Your task to perform on an android device: check android version Image 0: 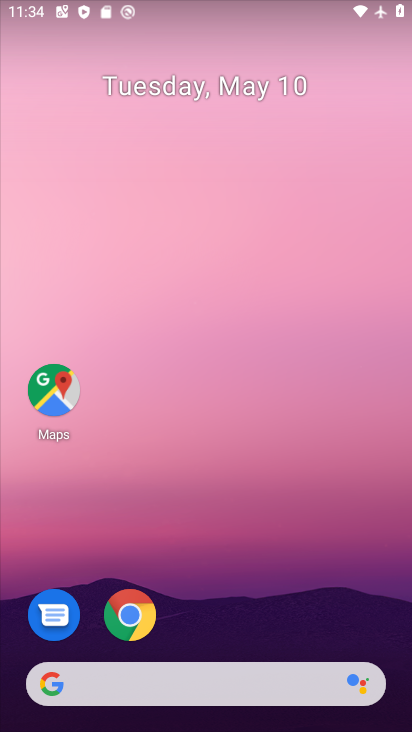
Step 0: drag from (230, 597) to (188, 17)
Your task to perform on an android device: check android version Image 1: 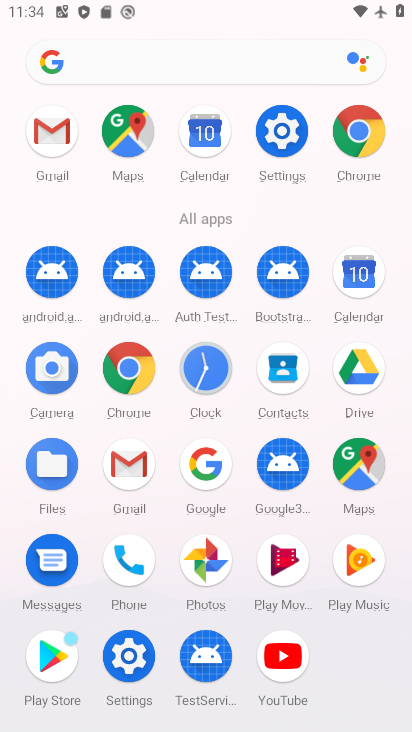
Step 1: click (127, 654)
Your task to perform on an android device: check android version Image 2: 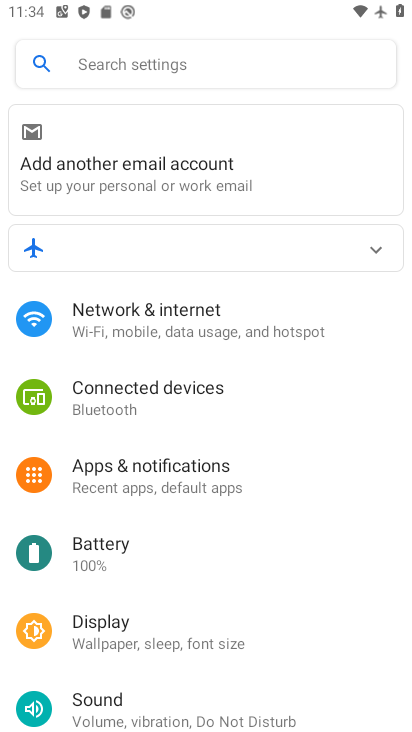
Step 2: drag from (252, 611) to (256, 105)
Your task to perform on an android device: check android version Image 3: 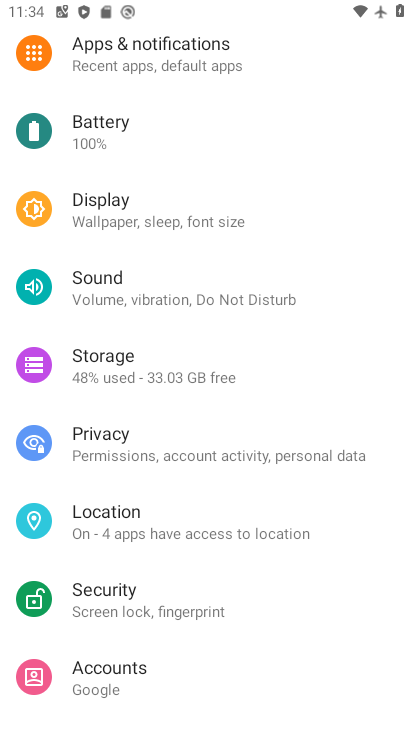
Step 3: drag from (249, 570) to (263, 104)
Your task to perform on an android device: check android version Image 4: 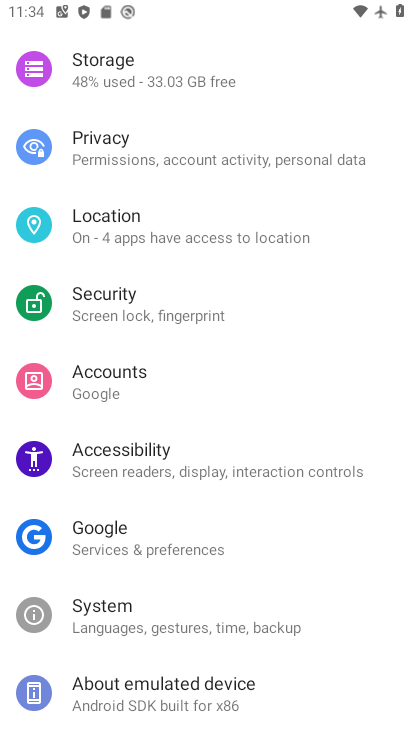
Step 4: drag from (241, 543) to (251, 194)
Your task to perform on an android device: check android version Image 5: 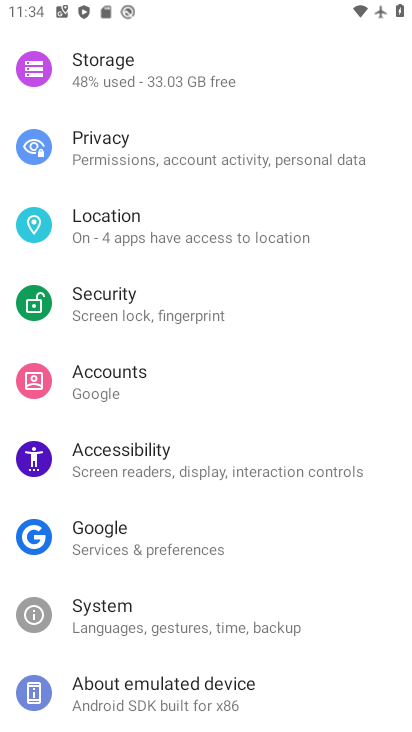
Step 5: drag from (252, 558) to (247, 152)
Your task to perform on an android device: check android version Image 6: 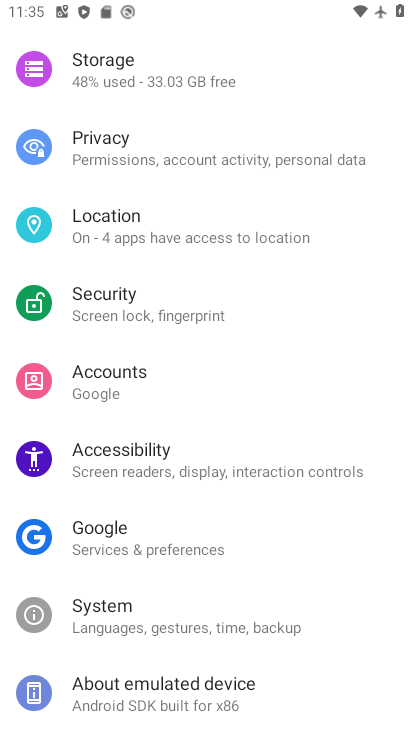
Step 6: click (157, 680)
Your task to perform on an android device: check android version Image 7: 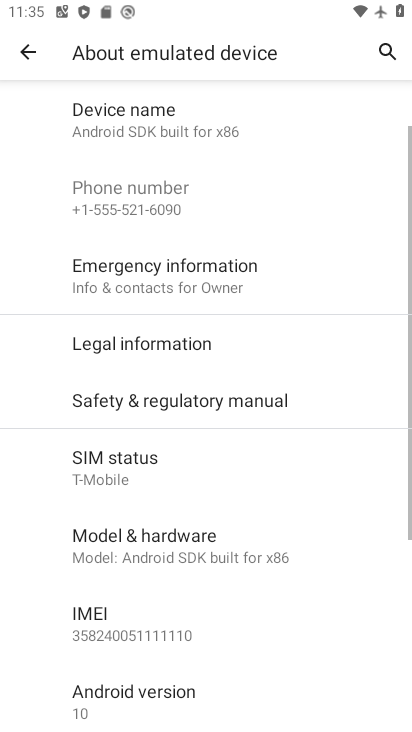
Step 7: click (191, 692)
Your task to perform on an android device: check android version Image 8: 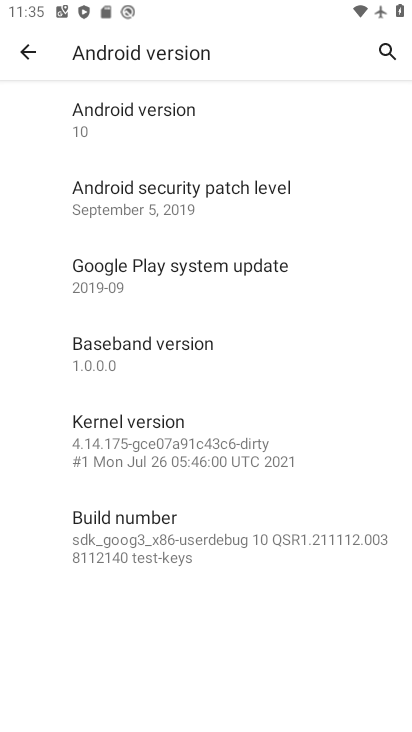
Step 8: task complete